Your task to perform on an android device: Open calendar and show me the fourth week of next month Image 0: 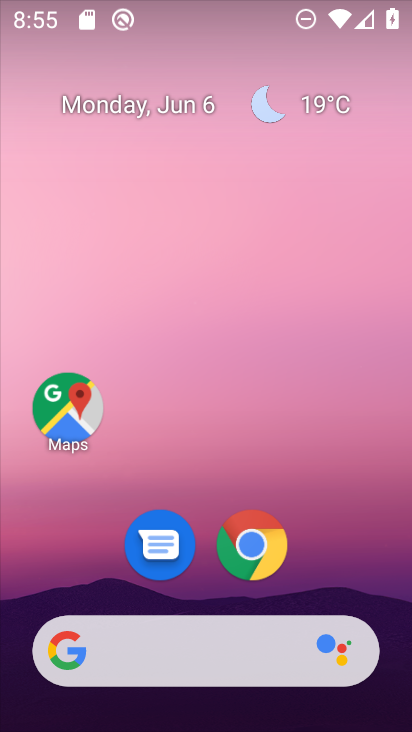
Step 0: drag from (204, 584) to (299, 46)
Your task to perform on an android device: Open calendar and show me the fourth week of next month Image 1: 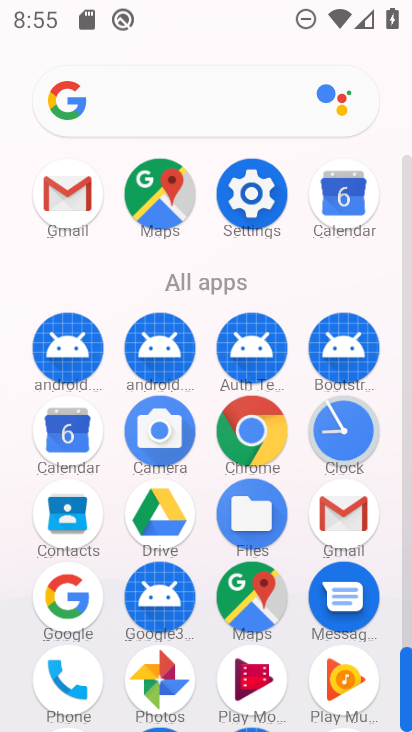
Step 1: click (72, 436)
Your task to perform on an android device: Open calendar and show me the fourth week of next month Image 2: 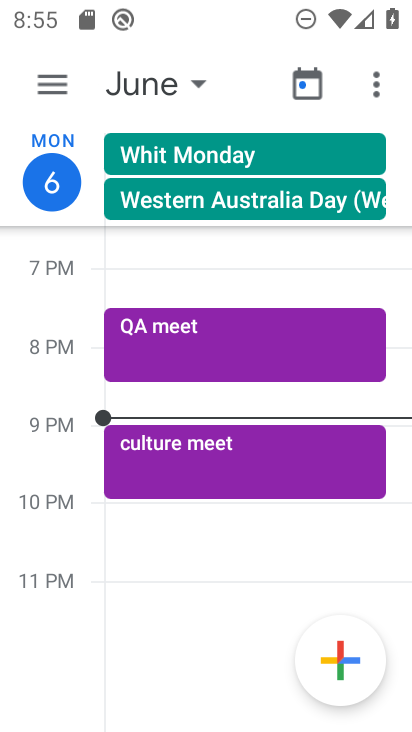
Step 2: click (151, 84)
Your task to perform on an android device: Open calendar and show me the fourth week of next month Image 3: 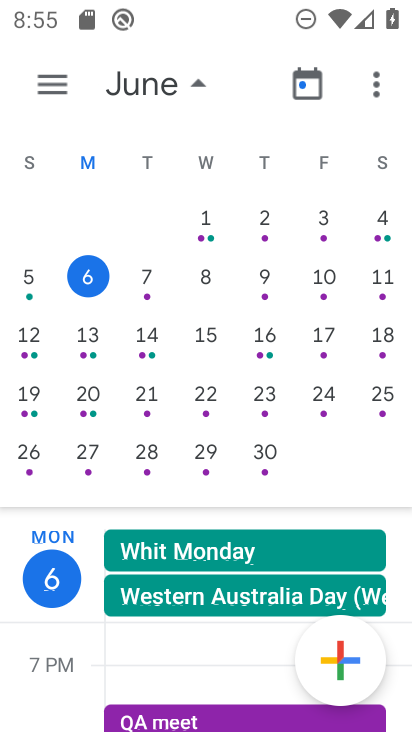
Step 3: drag from (344, 367) to (62, 346)
Your task to perform on an android device: Open calendar and show me the fourth week of next month Image 4: 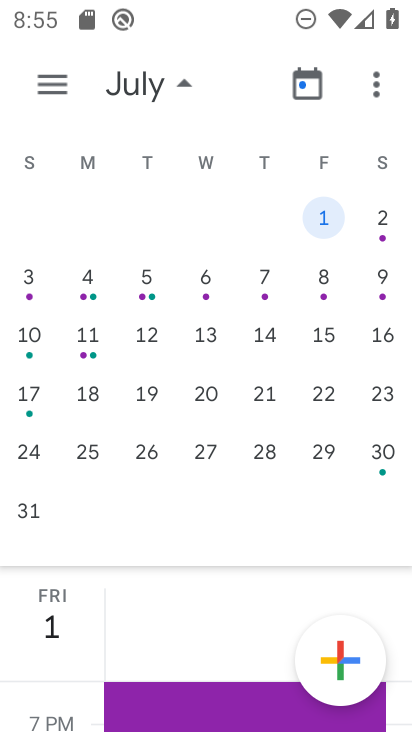
Step 4: click (55, 78)
Your task to perform on an android device: Open calendar and show me the fourth week of next month Image 5: 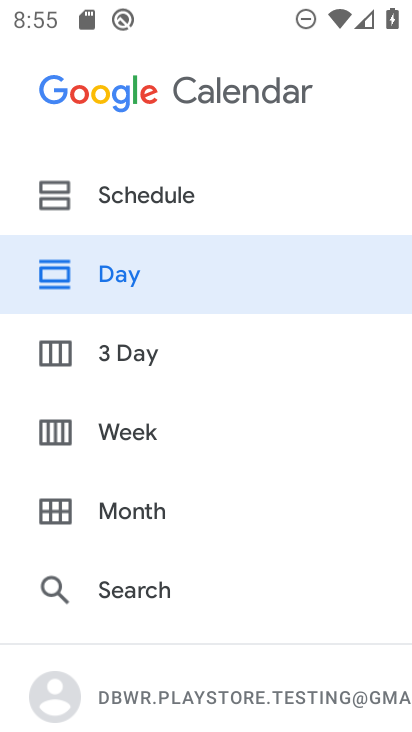
Step 5: click (138, 449)
Your task to perform on an android device: Open calendar and show me the fourth week of next month Image 6: 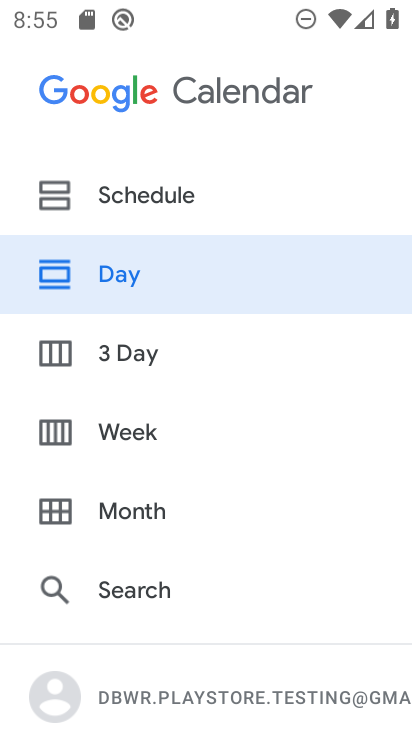
Step 6: click (146, 442)
Your task to perform on an android device: Open calendar and show me the fourth week of next month Image 7: 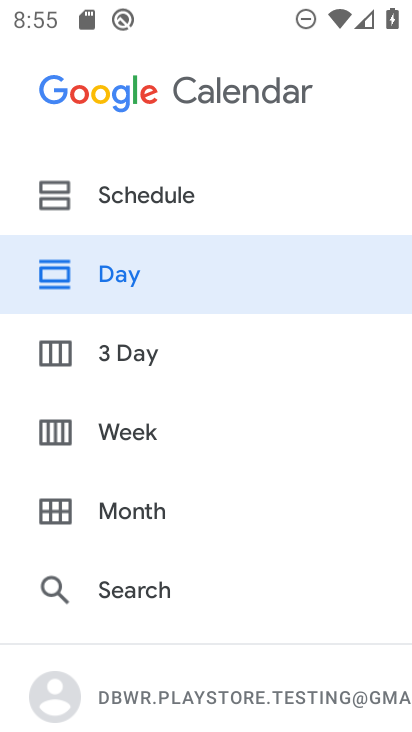
Step 7: click (146, 442)
Your task to perform on an android device: Open calendar and show me the fourth week of next month Image 8: 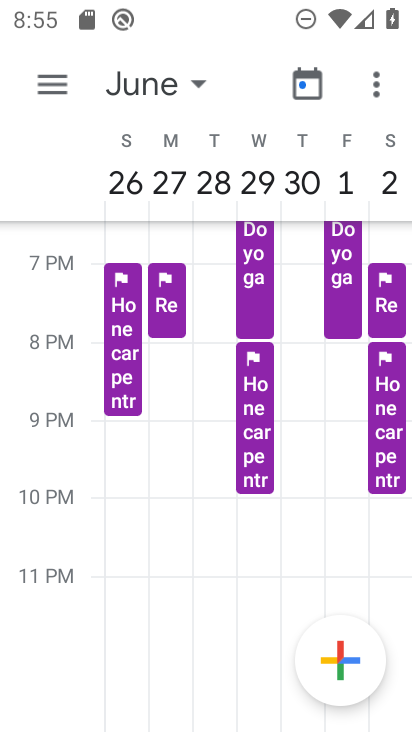
Step 8: task complete